Your task to perform on an android device: Open notification settings Image 0: 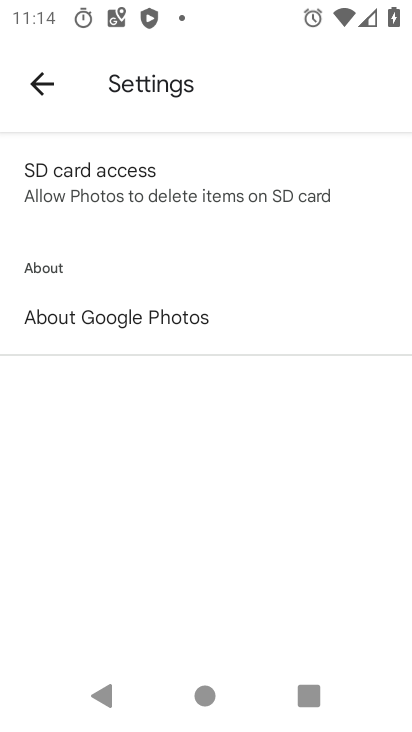
Step 0: press home button
Your task to perform on an android device: Open notification settings Image 1: 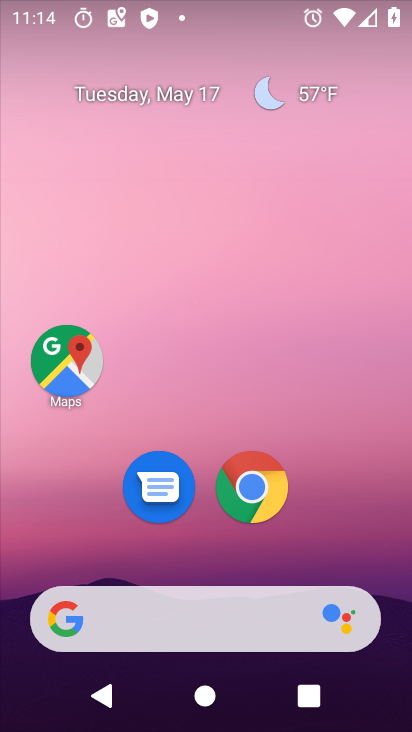
Step 1: drag from (217, 730) to (193, 25)
Your task to perform on an android device: Open notification settings Image 2: 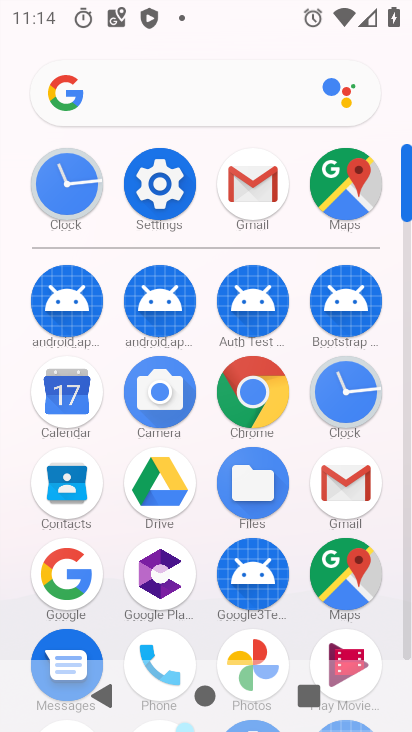
Step 2: click (159, 191)
Your task to perform on an android device: Open notification settings Image 3: 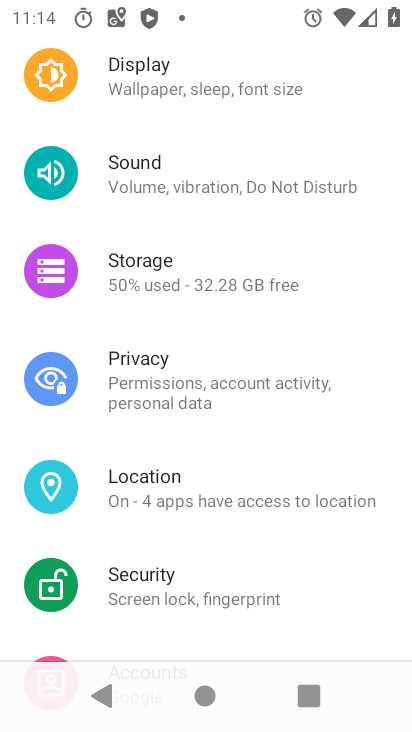
Step 3: drag from (204, 141) to (205, 495)
Your task to perform on an android device: Open notification settings Image 4: 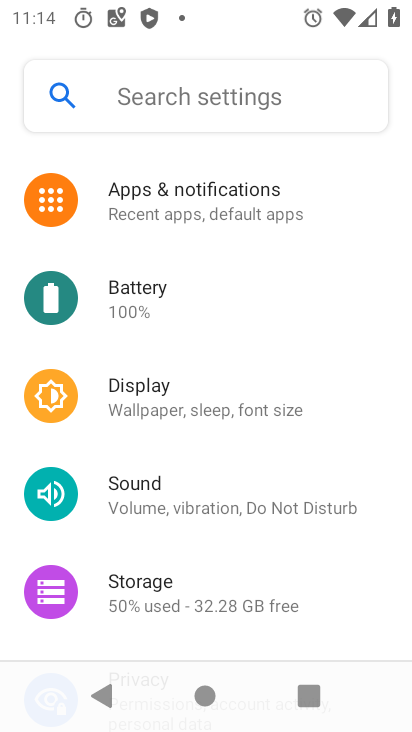
Step 4: click (184, 209)
Your task to perform on an android device: Open notification settings Image 5: 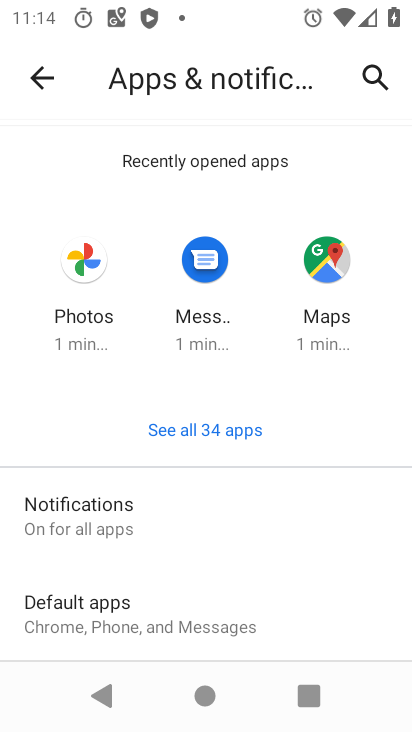
Step 5: click (95, 514)
Your task to perform on an android device: Open notification settings Image 6: 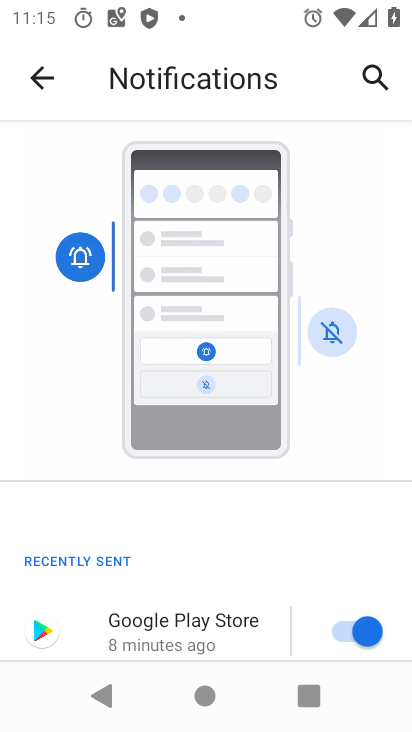
Step 6: task complete